Your task to perform on an android device: Search for "razer deathadder" on bestbuy.com, select the first entry, add it to the cart, then select checkout. Image 0: 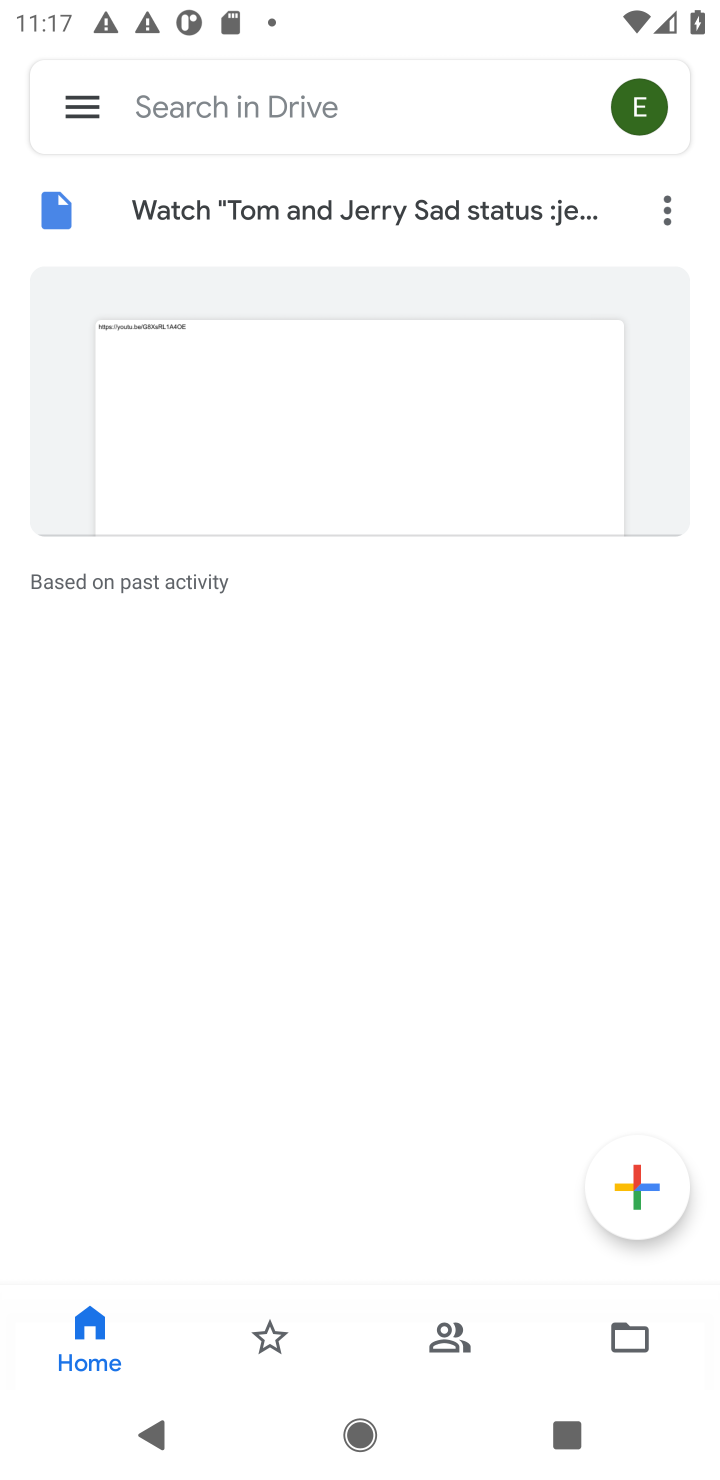
Step 0: task complete